Your task to perform on an android device: turn off sleep mode Image 0: 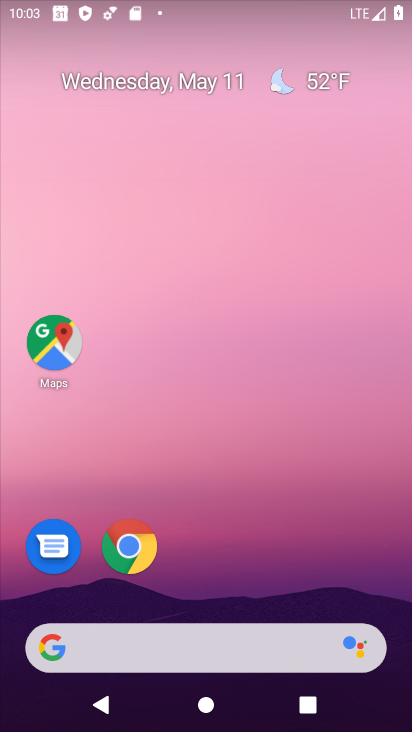
Step 0: drag from (202, 647) to (150, 8)
Your task to perform on an android device: turn off sleep mode Image 1: 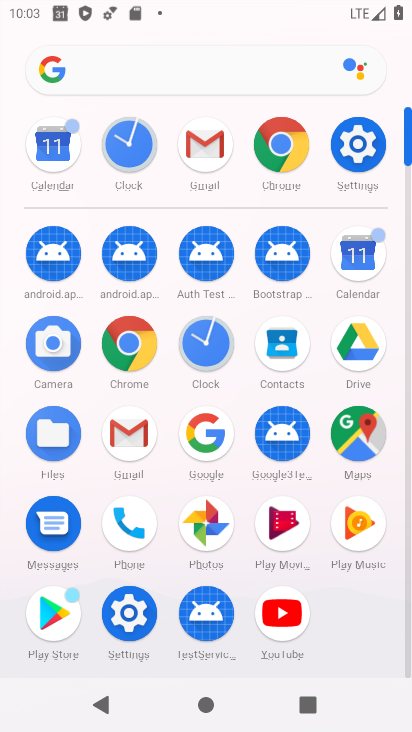
Step 1: click (364, 147)
Your task to perform on an android device: turn off sleep mode Image 2: 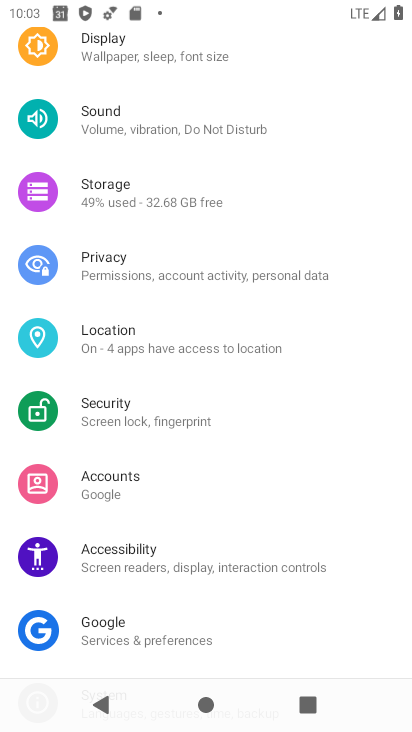
Step 2: drag from (173, 555) to (136, 125)
Your task to perform on an android device: turn off sleep mode Image 3: 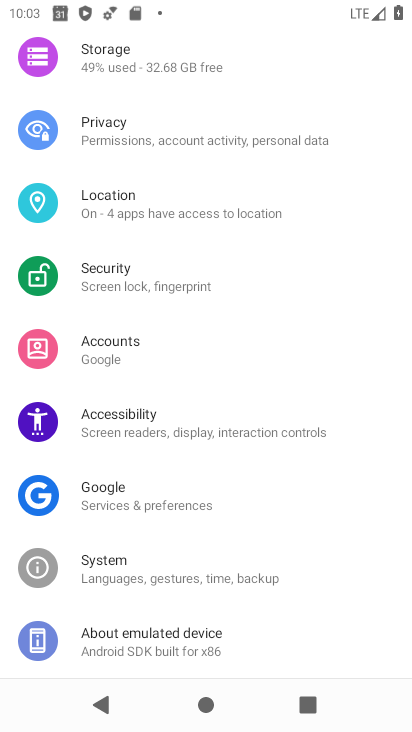
Step 3: drag from (122, 161) to (147, 499)
Your task to perform on an android device: turn off sleep mode Image 4: 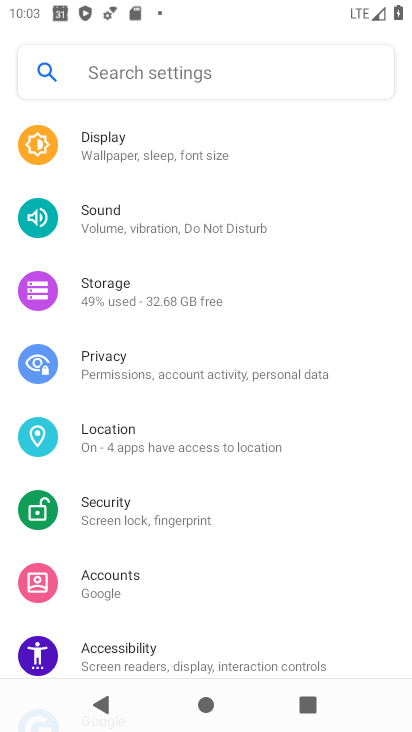
Step 4: click (97, 144)
Your task to perform on an android device: turn off sleep mode Image 5: 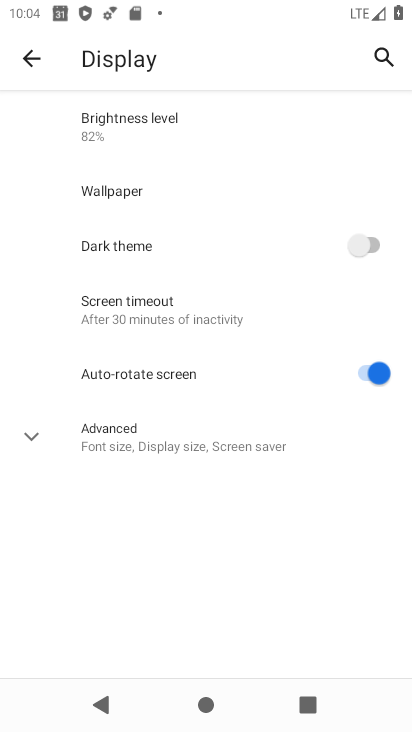
Step 5: click (188, 435)
Your task to perform on an android device: turn off sleep mode Image 6: 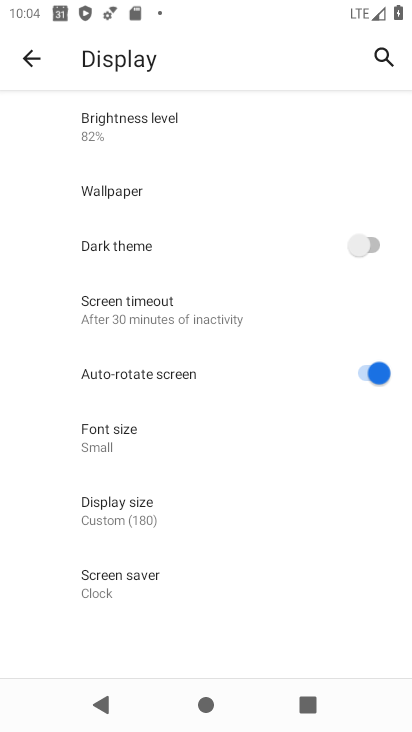
Step 6: task complete